Your task to perform on an android device: turn off wifi Image 0: 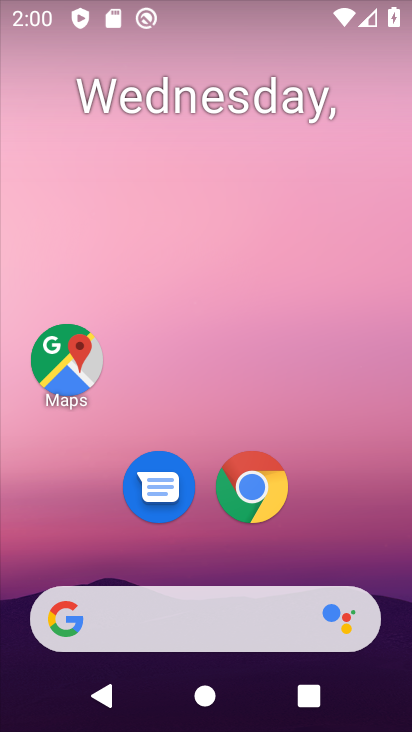
Step 0: drag from (206, 441) to (215, 92)
Your task to perform on an android device: turn off wifi Image 1: 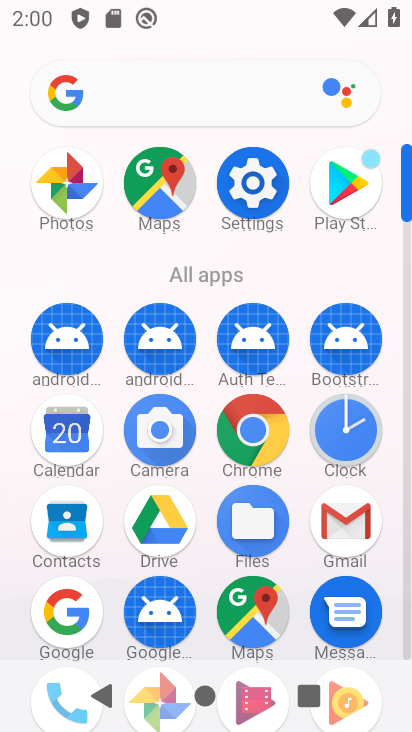
Step 1: click (252, 180)
Your task to perform on an android device: turn off wifi Image 2: 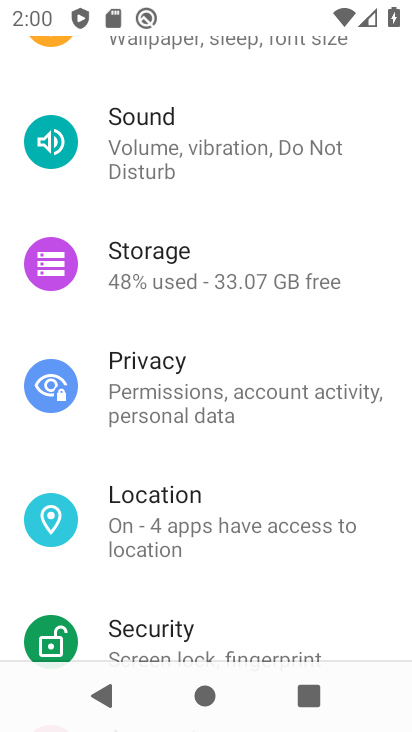
Step 2: drag from (221, 130) to (225, 584)
Your task to perform on an android device: turn off wifi Image 3: 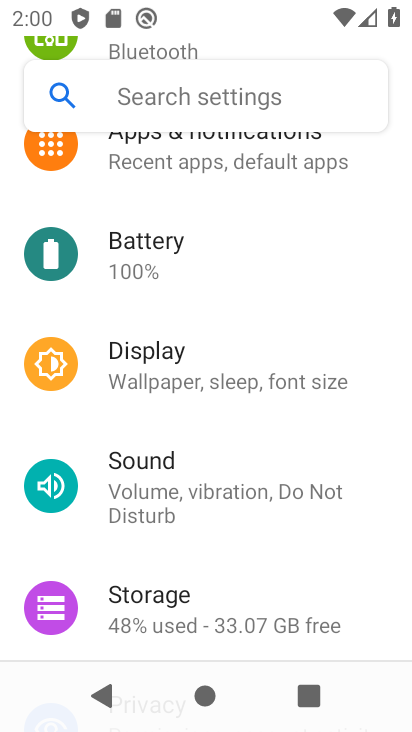
Step 3: drag from (212, 202) to (250, 606)
Your task to perform on an android device: turn off wifi Image 4: 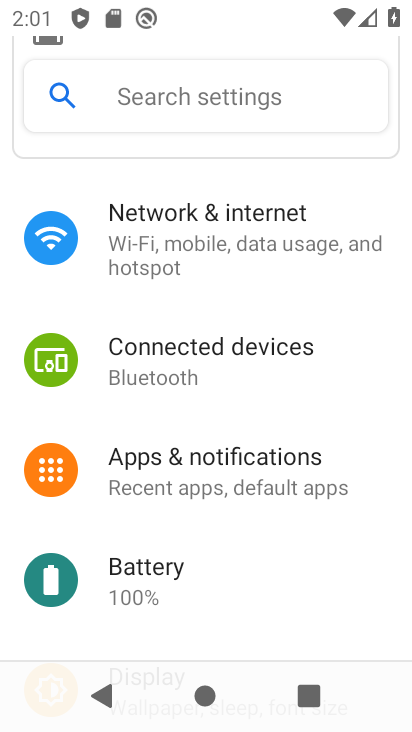
Step 4: click (233, 249)
Your task to perform on an android device: turn off wifi Image 5: 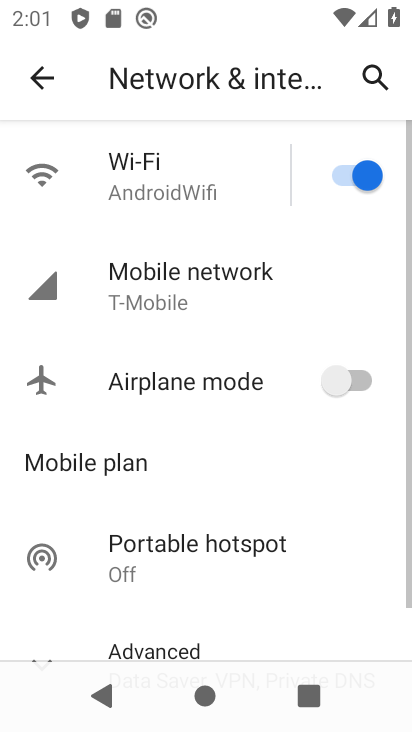
Step 5: click (173, 169)
Your task to perform on an android device: turn off wifi Image 6: 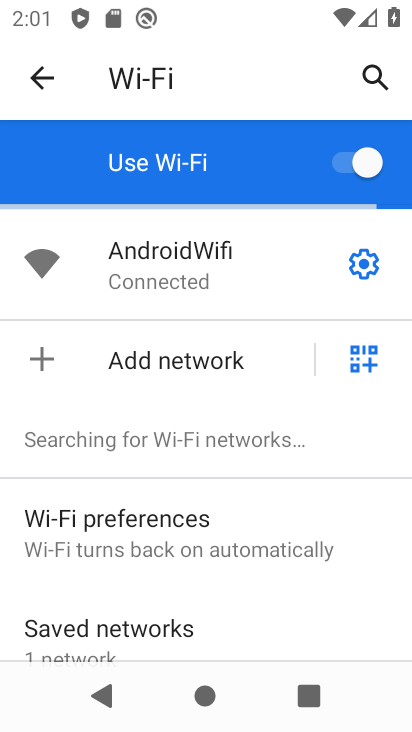
Step 6: task complete